Your task to perform on an android device: Search for Mexican restaurants on Maps Image 0: 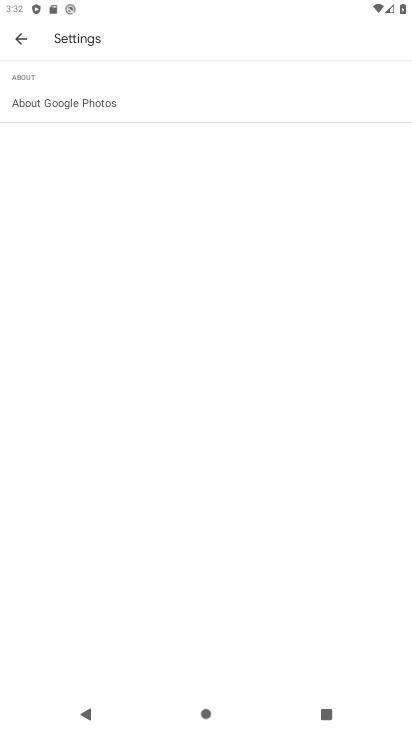
Step 0: press home button
Your task to perform on an android device: Search for Mexican restaurants on Maps Image 1: 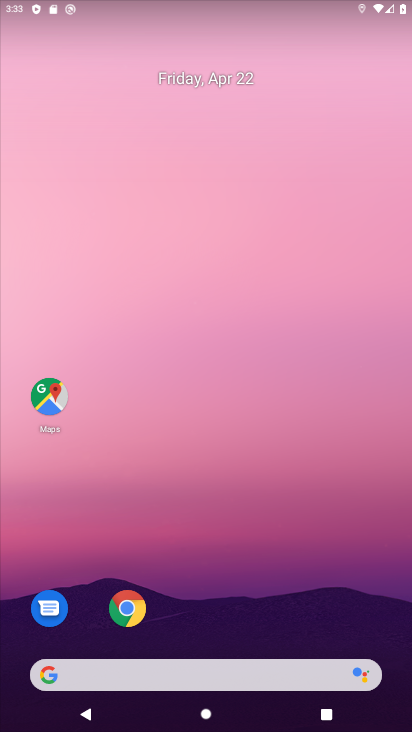
Step 1: drag from (333, 531) to (274, 222)
Your task to perform on an android device: Search for Mexican restaurants on Maps Image 2: 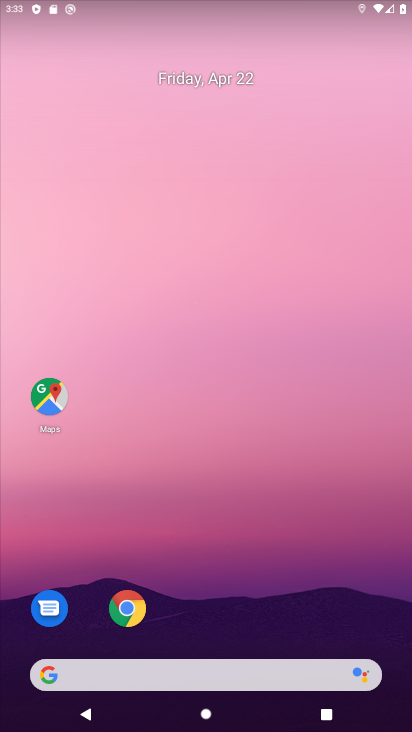
Step 2: click (47, 412)
Your task to perform on an android device: Search for Mexican restaurants on Maps Image 3: 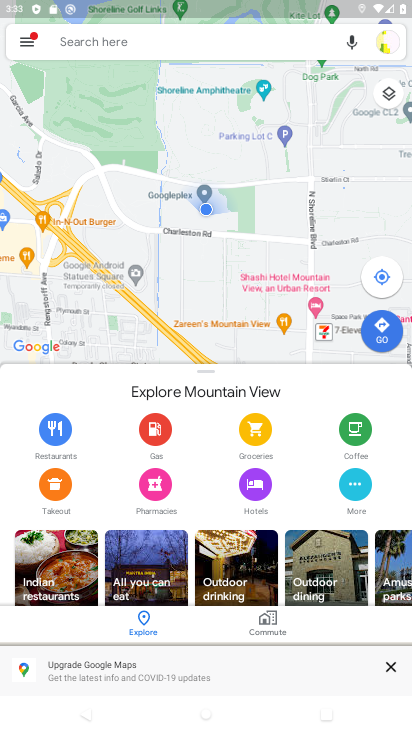
Step 3: click (158, 33)
Your task to perform on an android device: Search for Mexican restaurants on Maps Image 4: 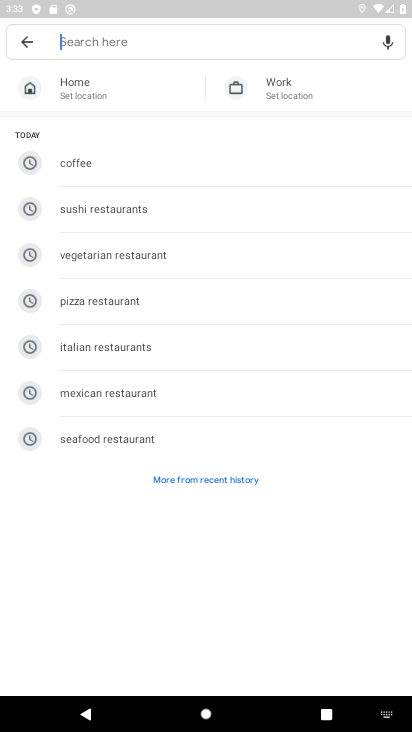
Step 4: click (157, 384)
Your task to perform on an android device: Search for Mexican restaurants on Maps Image 5: 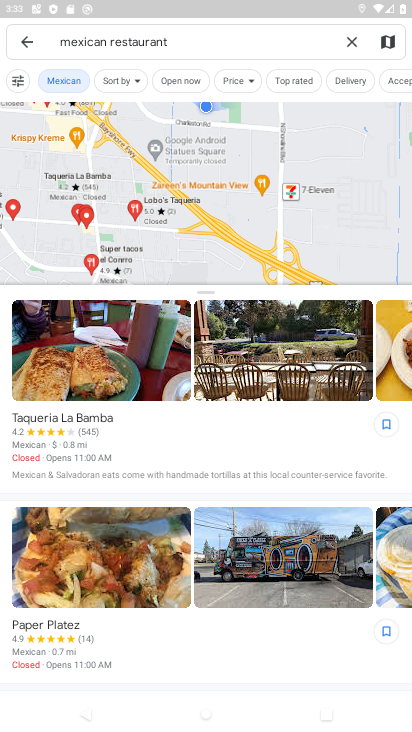
Step 5: task complete